Your task to perform on an android device: Search for vegetarian restaurants on Maps Image 0: 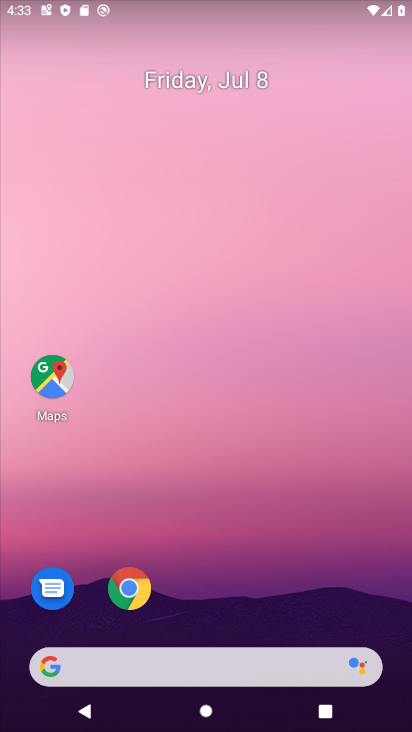
Step 0: click (35, 368)
Your task to perform on an android device: Search for vegetarian restaurants on Maps Image 1: 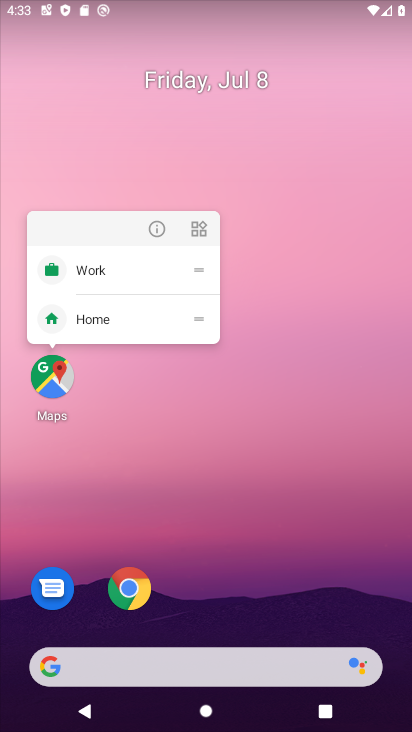
Step 1: click (49, 365)
Your task to perform on an android device: Search for vegetarian restaurants on Maps Image 2: 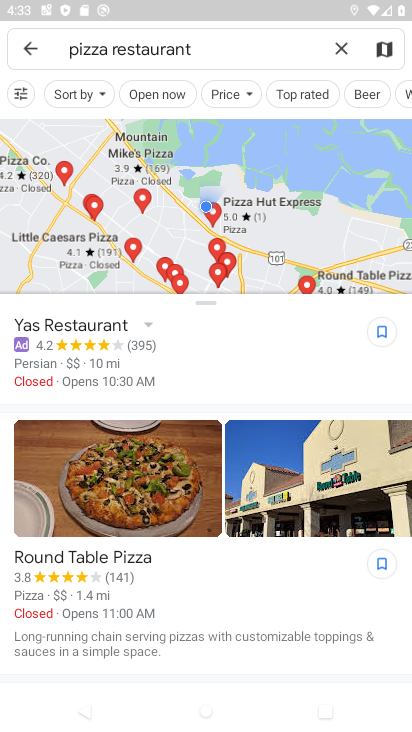
Step 2: click (90, 53)
Your task to perform on an android device: Search for vegetarian restaurants on Maps Image 3: 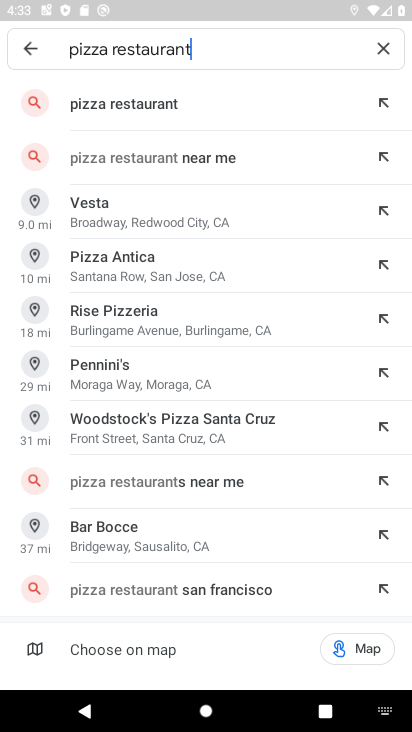
Step 3: click (89, 52)
Your task to perform on an android device: Search for vegetarian restaurants on Maps Image 4: 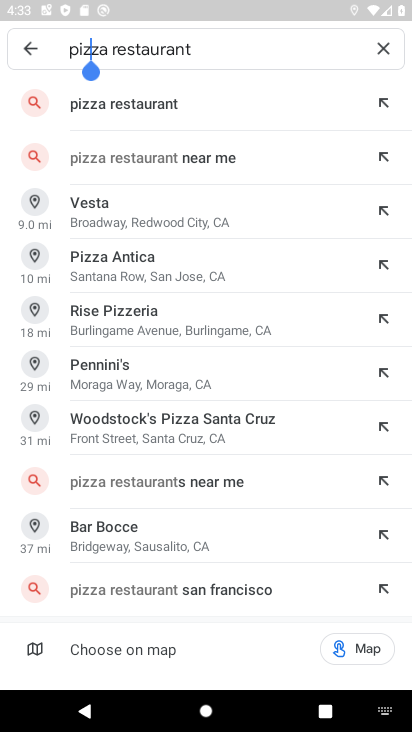
Step 4: click (92, 45)
Your task to perform on an android device: Search for vegetarian restaurants on Maps Image 5: 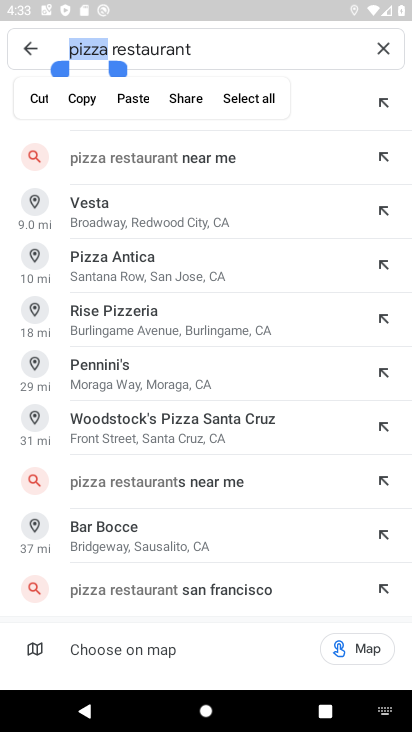
Step 5: type "vegetarian"
Your task to perform on an android device: Search for vegetarian restaurants on Maps Image 6: 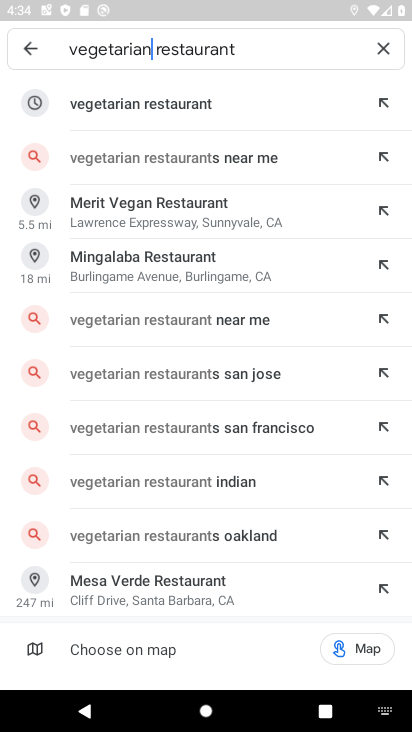
Step 6: click (120, 99)
Your task to perform on an android device: Search for vegetarian restaurants on Maps Image 7: 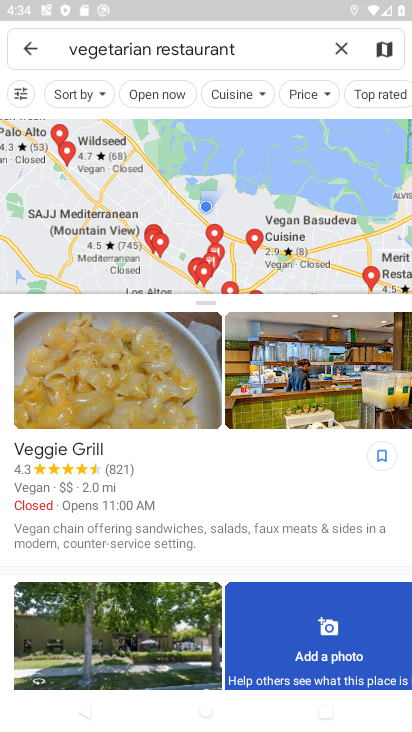
Step 7: task complete